Your task to perform on an android device: add a contact Image 0: 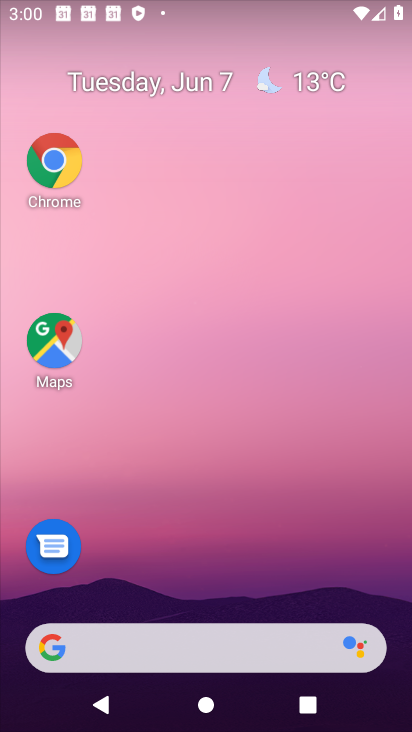
Step 0: drag from (142, 499) to (195, 2)
Your task to perform on an android device: add a contact Image 1: 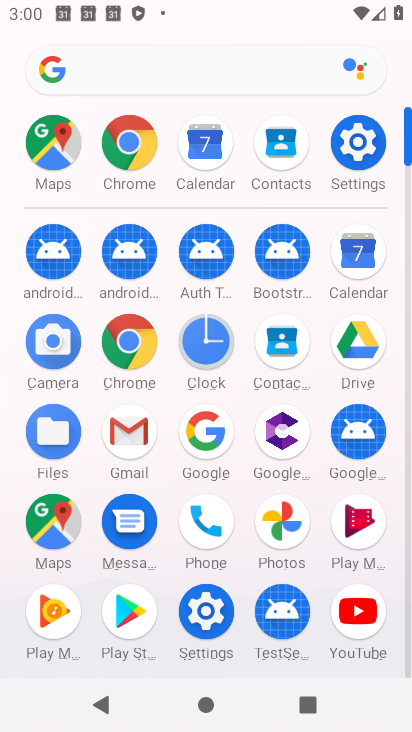
Step 1: click (284, 343)
Your task to perform on an android device: add a contact Image 2: 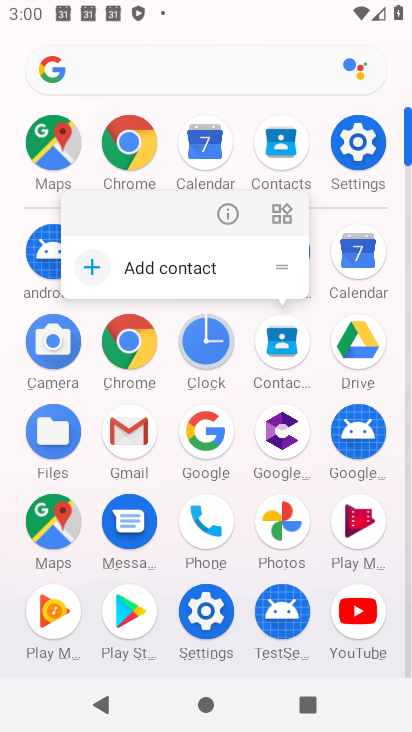
Step 2: click (216, 208)
Your task to perform on an android device: add a contact Image 3: 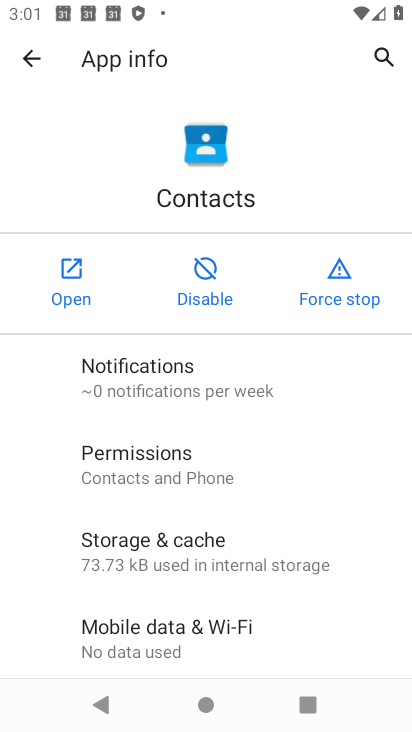
Step 3: drag from (194, 579) to (271, 144)
Your task to perform on an android device: add a contact Image 4: 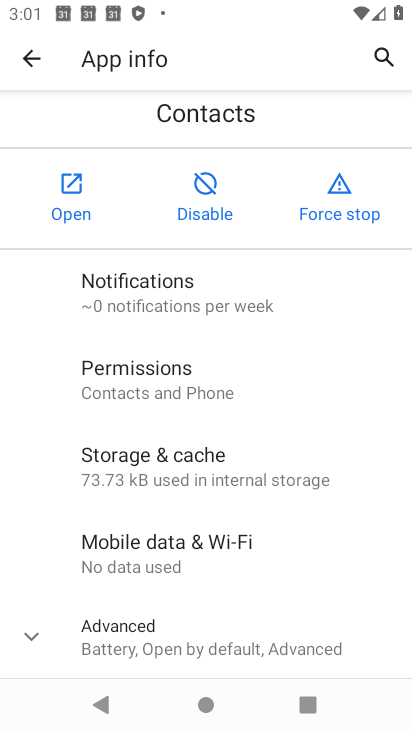
Step 4: click (72, 190)
Your task to perform on an android device: add a contact Image 5: 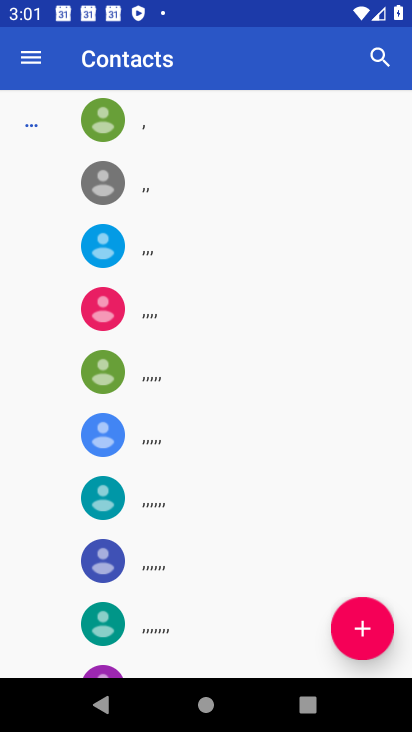
Step 5: click (359, 615)
Your task to perform on an android device: add a contact Image 6: 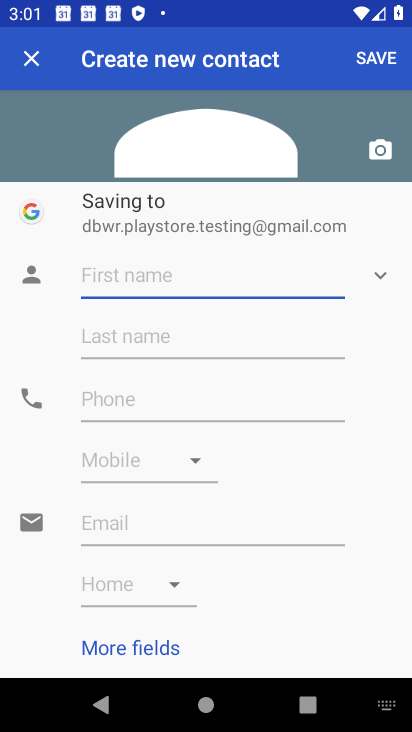
Step 6: type "xsaza"
Your task to perform on an android device: add a contact Image 7: 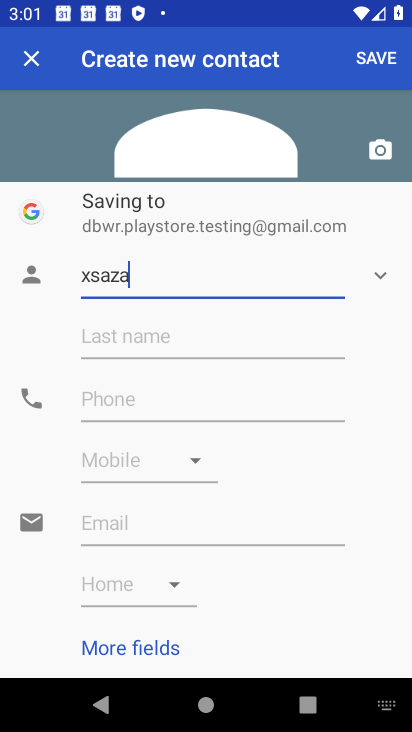
Step 7: click (376, 59)
Your task to perform on an android device: add a contact Image 8: 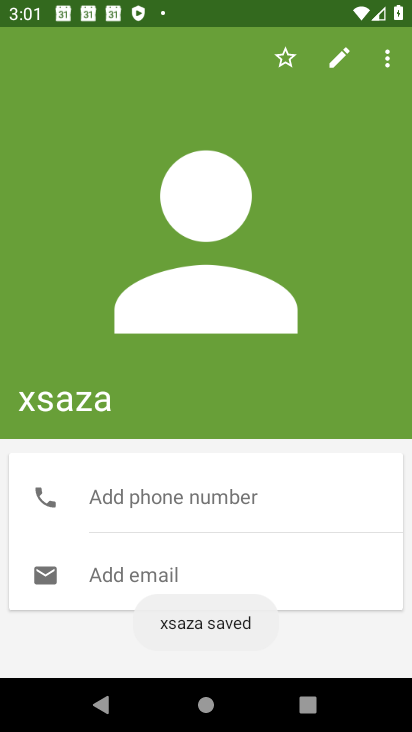
Step 8: task complete